Your task to perform on an android device: delete browsing data in the chrome app Image 0: 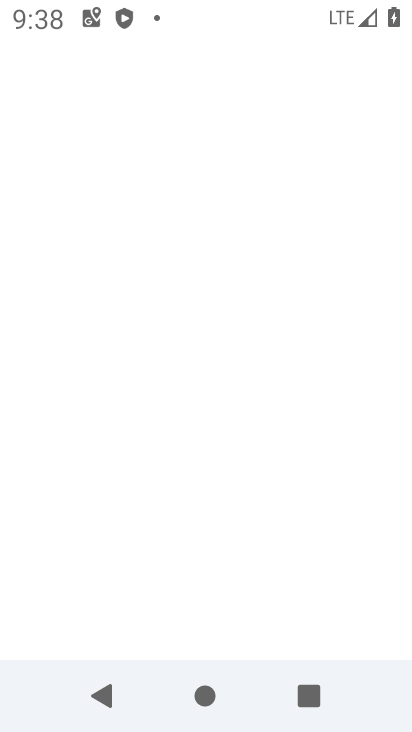
Step 0: press home button
Your task to perform on an android device: delete browsing data in the chrome app Image 1: 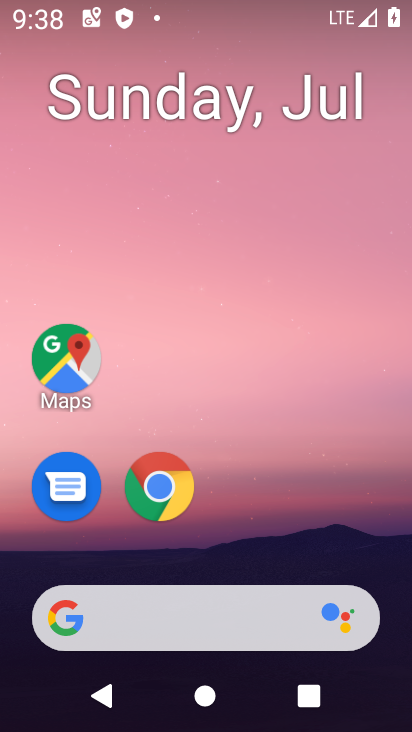
Step 1: drag from (358, 526) to (349, 109)
Your task to perform on an android device: delete browsing data in the chrome app Image 2: 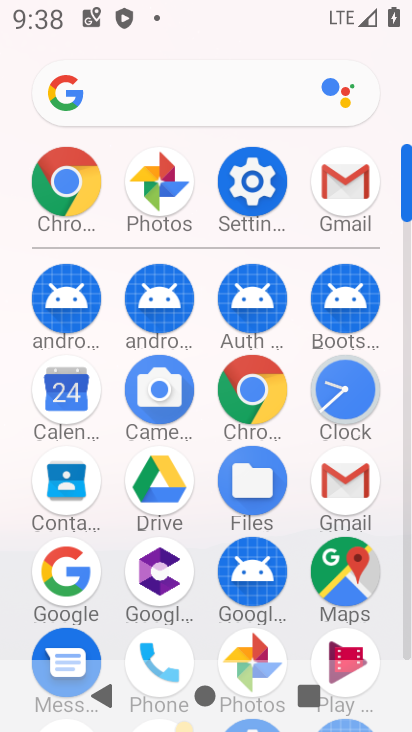
Step 2: click (261, 398)
Your task to perform on an android device: delete browsing data in the chrome app Image 3: 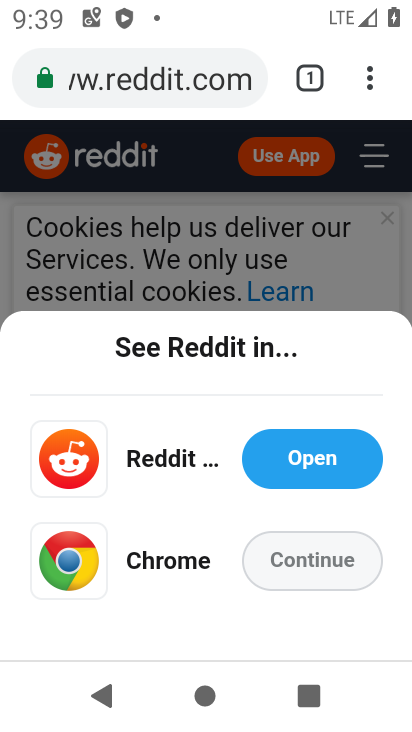
Step 3: click (369, 85)
Your task to perform on an android device: delete browsing data in the chrome app Image 4: 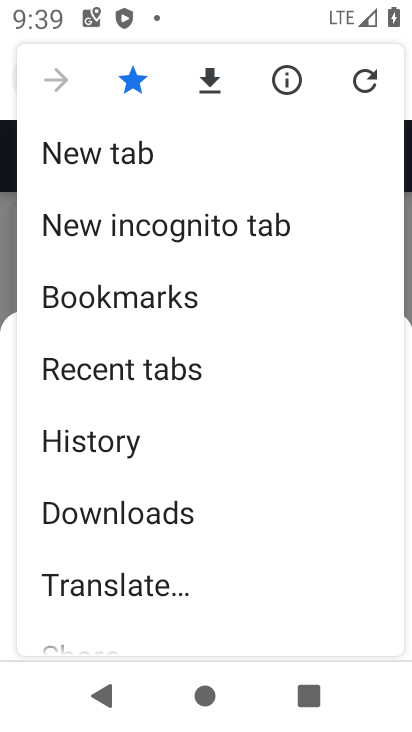
Step 4: drag from (289, 490) to (291, 407)
Your task to perform on an android device: delete browsing data in the chrome app Image 5: 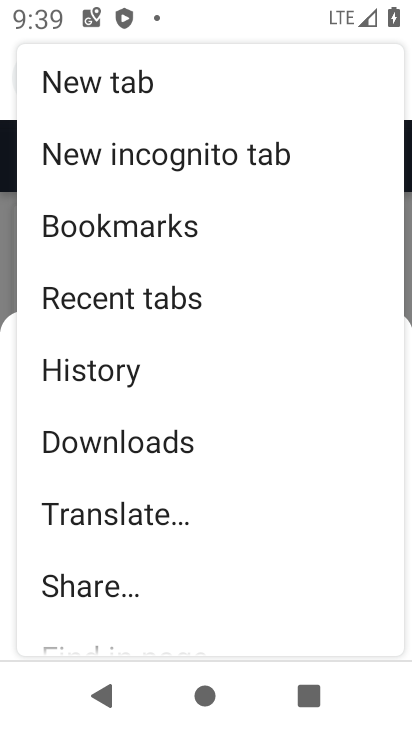
Step 5: drag from (298, 521) to (304, 428)
Your task to perform on an android device: delete browsing data in the chrome app Image 6: 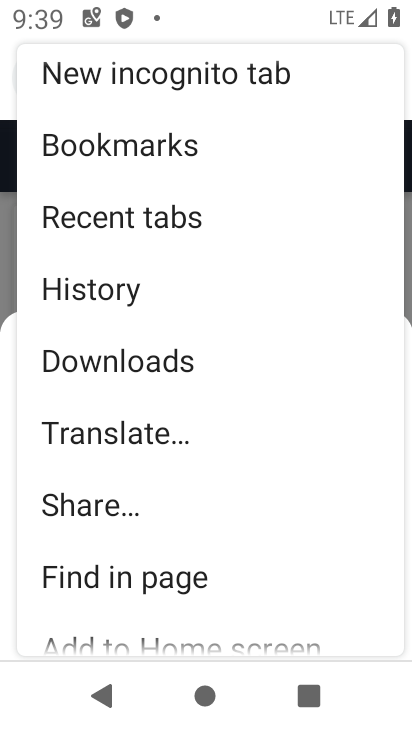
Step 6: drag from (289, 533) to (297, 442)
Your task to perform on an android device: delete browsing data in the chrome app Image 7: 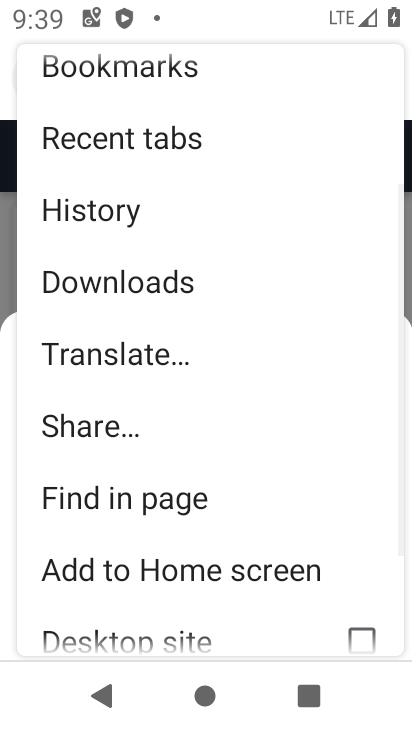
Step 7: drag from (315, 613) to (314, 429)
Your task to perform on an android device: delete browsing data in the chrome app Image 8: 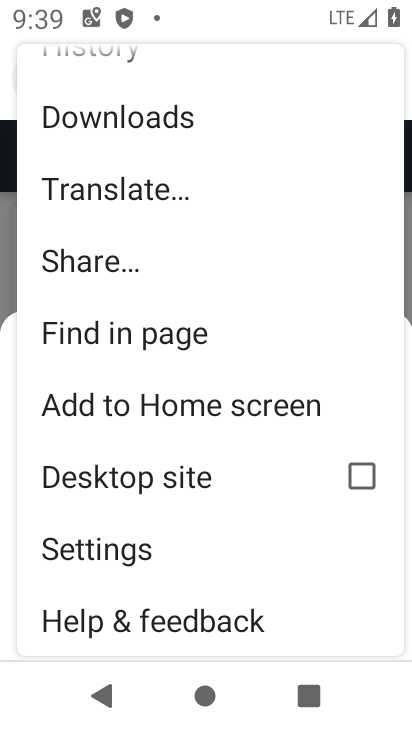
Step 8: click (274, 554)
Your task to perform on an android device: delete browsing data in the chrome app Image 9: 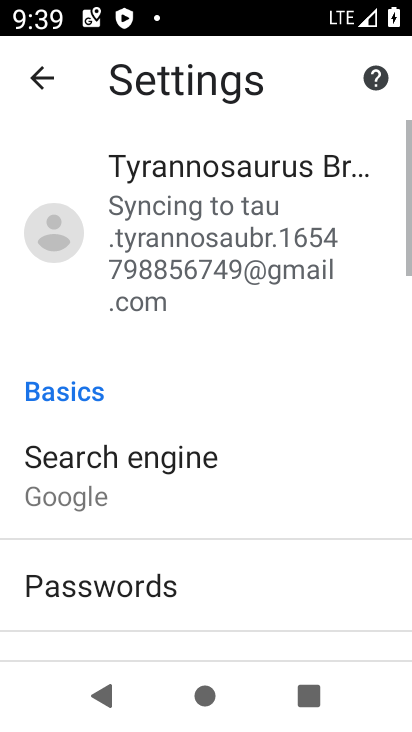
Step 9: drag from (274, 554) to (277, 447)
Your task to perform on an android device: delete browsing data in the chrome app Image 10: 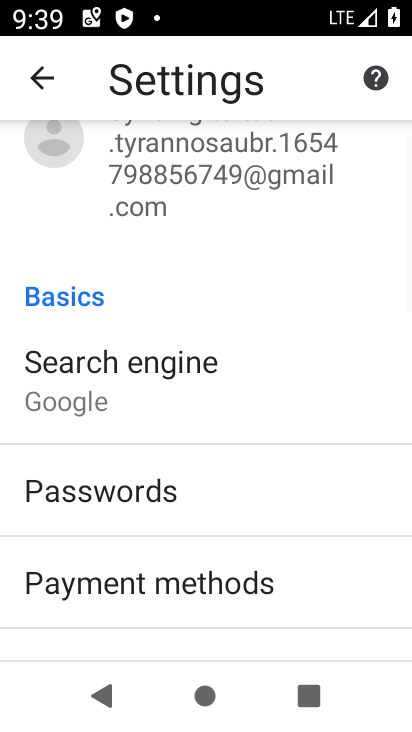
Step 10: drag from (292, 557) to (290, 460)
Your task to perform on an android device: delete browsing data in the chrome app Image 11: 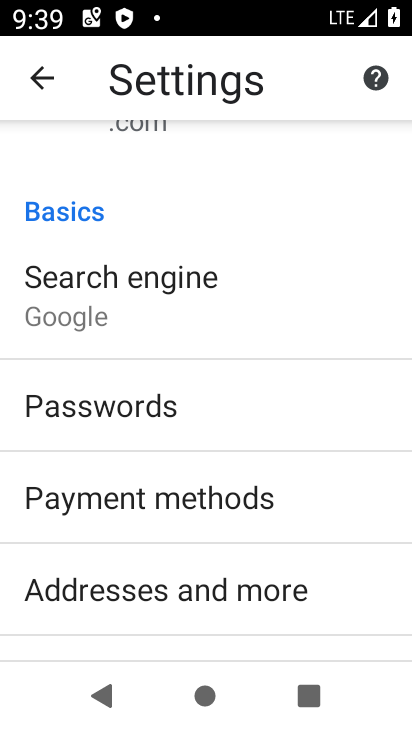
Step 11: drag from (325, 600) to (325, 462)
Your task to perform on an android device: delete browsing data in the chrome app Image 12: 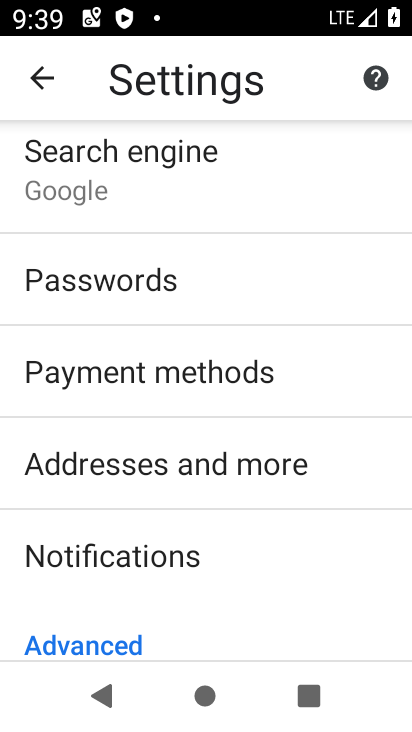
Step 12: drag from (323, 584) to (321, 479)
Your task to perform on an android device: delete browsing data in the chrome app Image 13: 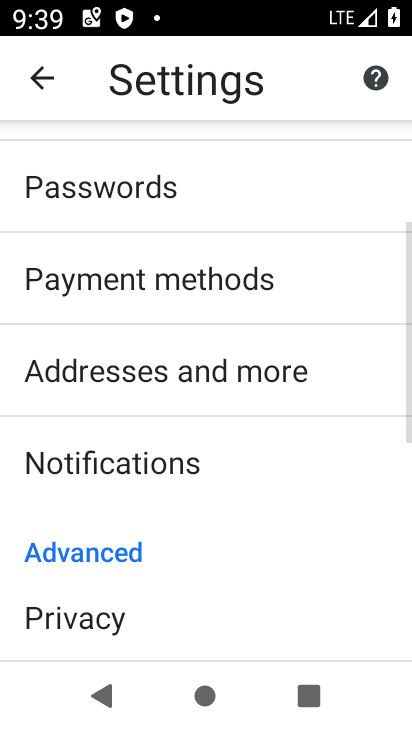
Step 13: drag from (305, 581) to (304, 461)
Your task to perform on an android device: delete browsing data in the chrome app Image 14: 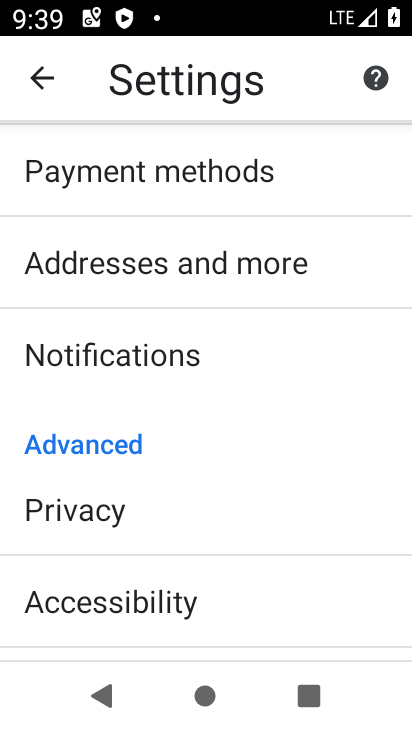
Step 14: click (252, 505)
Your task to perform on an android device: delete browsing data in the chrome app Image 15: 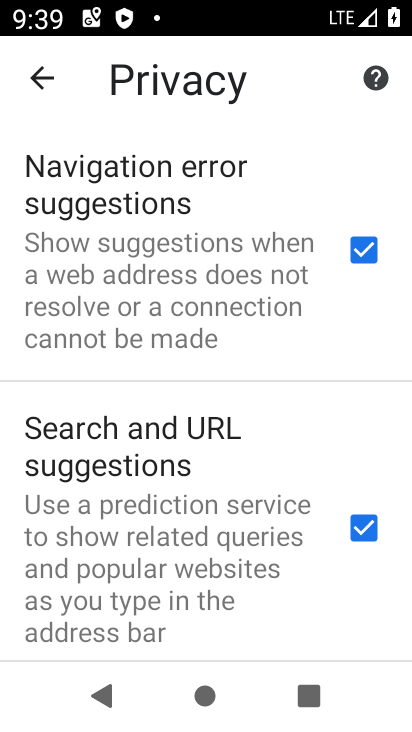
Step 15: drag from (272, 578) to (280, 405)
Your task to perform on an android device: delete browsing data in the chrome app Image 16: 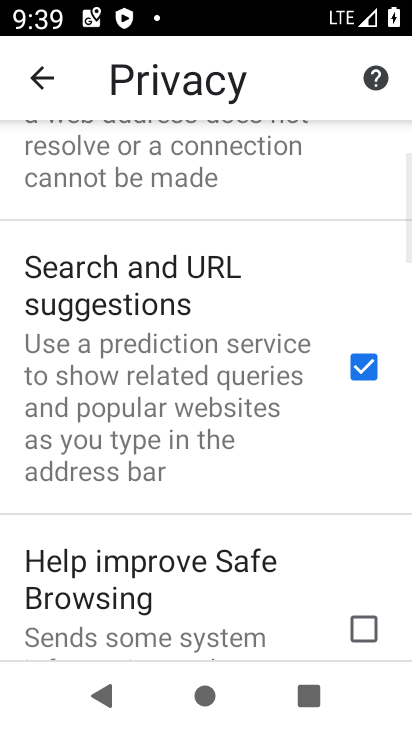
Step 16: drag from (295, 535) to (289, 372)
Your task to perform on an android device: delete browsing data in the chrome app Image 17: 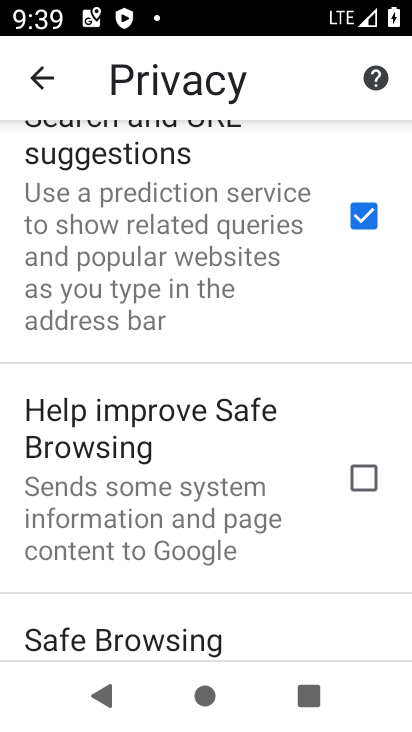
Step 17: drag from (294, 531) to (295, 406)
Your task to perform on an android device: delete browsing data in the chrome app Image 18: 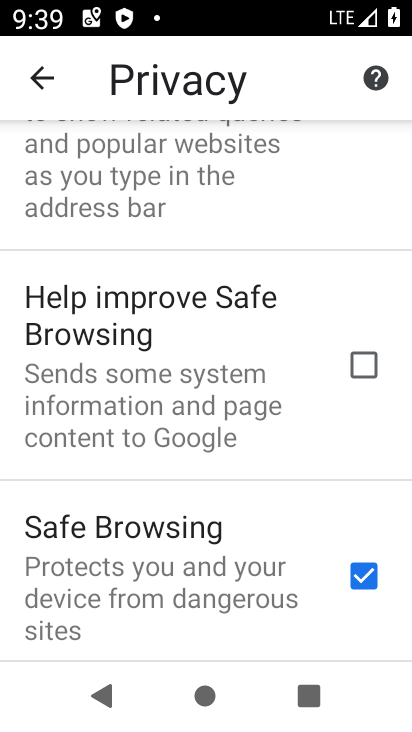
Step 18: drag from (276, 526) to (278, 383)
Your task to perform on an android device: delete browsing data in the chrome app Image 19: 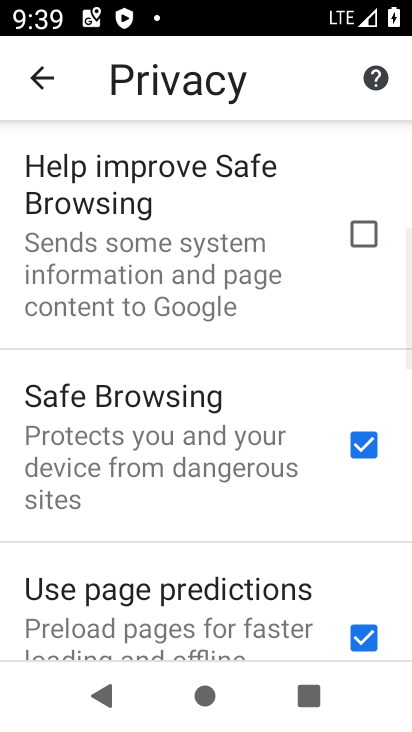
Step 19: drag from (263, 568) to (258, 394)
Your task to perform on an android device: delete browsing data in the chrome app Image 20: 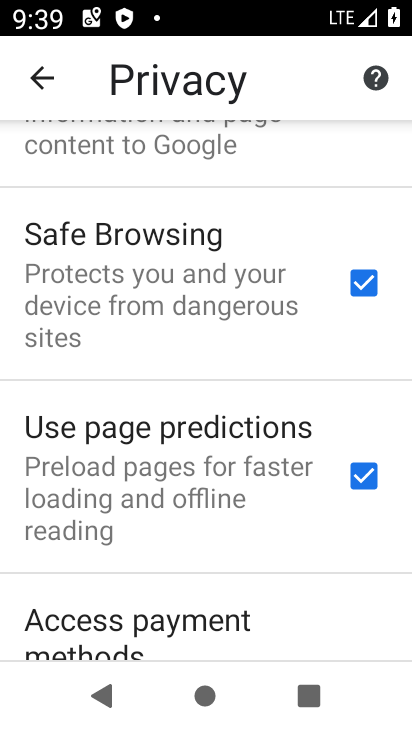
Step 20: drag from (273, 601) to (282, 418)
Your task to perform on an android device: delete browsing data in the chrome app Image 21: 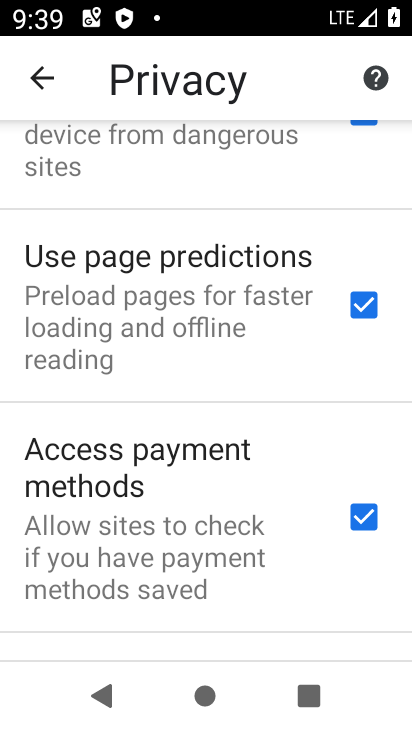
Step 21: drag from (270, 600) to (286, 403)
Your task to perform on an android device: delete browsing data in the chrome app Image 22: 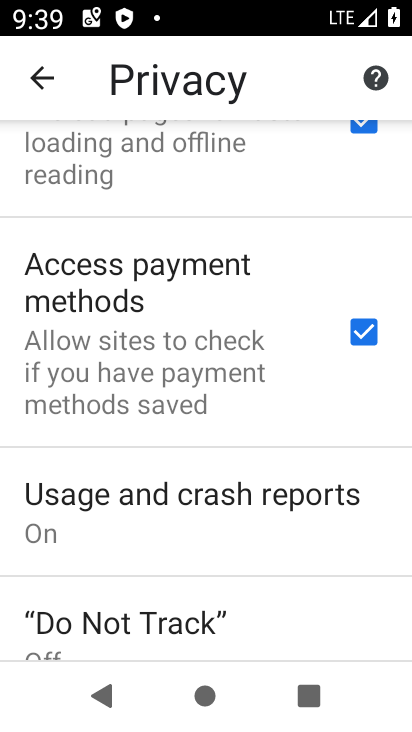
Step 22: drag from (274, 576) to (284, 379)
Your task to perform on an android device: delete browsing data in the chrome app Image 23: 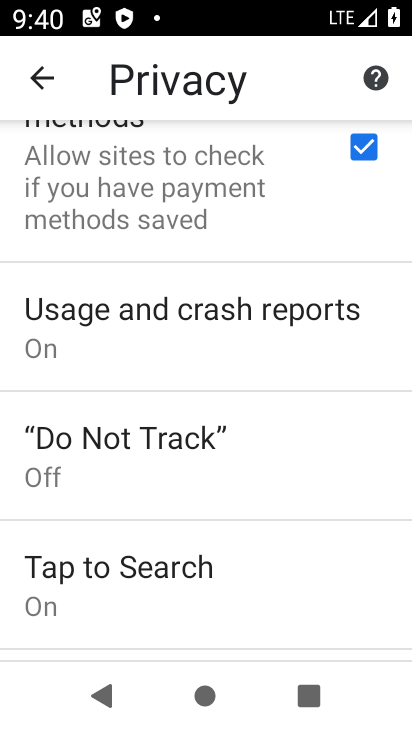
Step 23: drag from (318, 552) to (319, 504)
Your task to perform on an android device: delete browsing data in the chrome app Image 24: 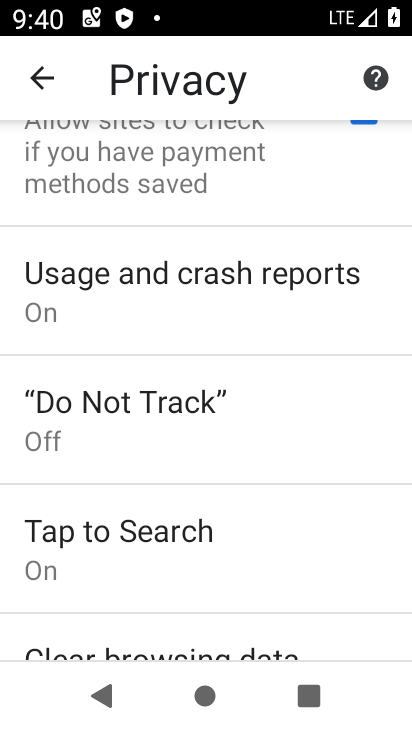
Step 24: drag from (294, 567) to (289, 446)
Your task to perform on an android device: delete browsing data in the chrome app Image 25: 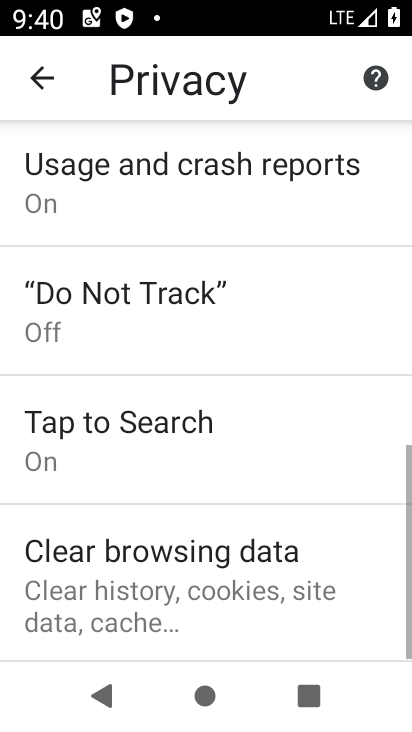
Step 25: click (283, 587)
Your task to perform on an android device: delete browsing data in the chrome app Image 26: 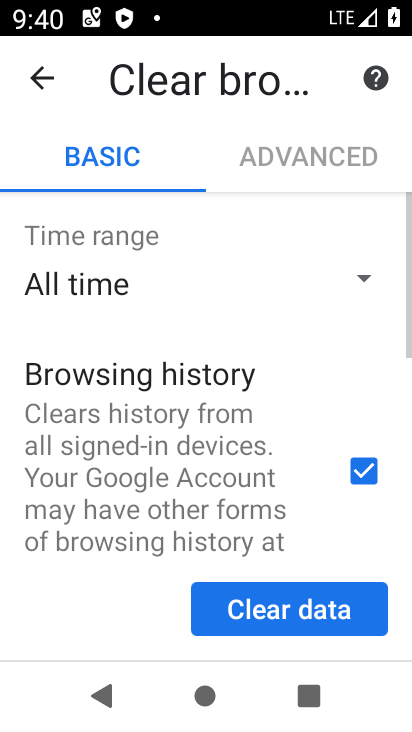
Step 26: click (285, 598)
Your task to perform on an android device: delete browsing data in the chrome app Image 27: 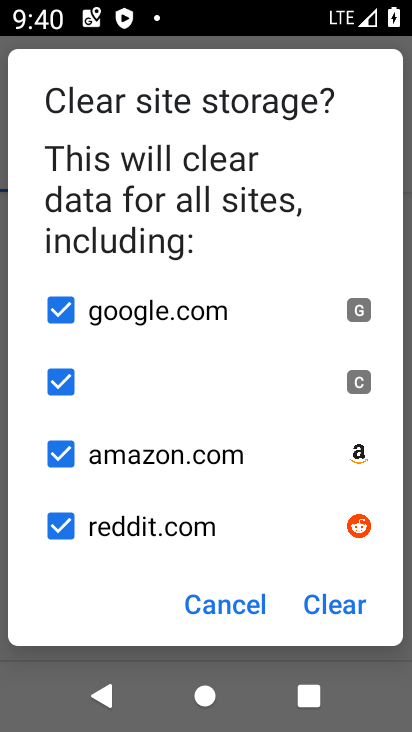
Step 27: click (336, 607)
Your task to perform on an android device: delete browsing data in the chrome app Image 28: 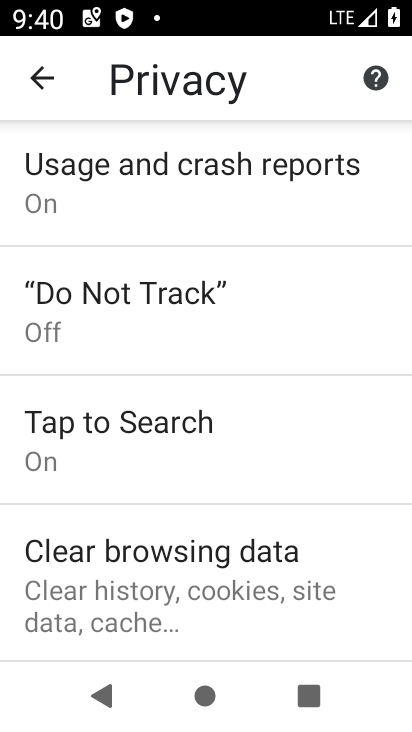
Step 28: task complete